Your task to perform on an android device: toggle airplane mode Image 0: 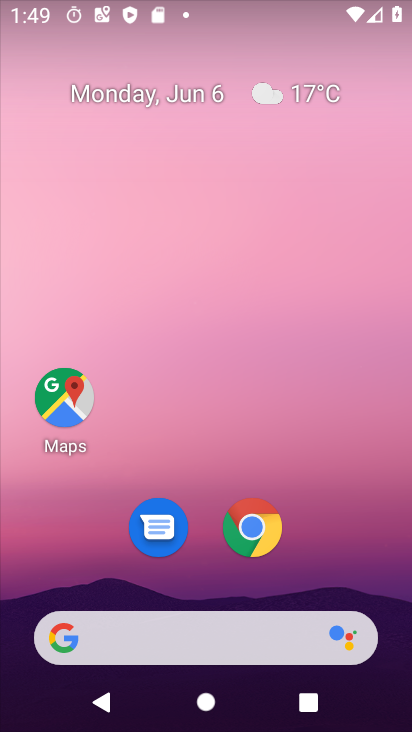
Step 0: drag from (232, 719) to (189, 64)
Your task to perform on an android device: toggle airplane mode Image 1: 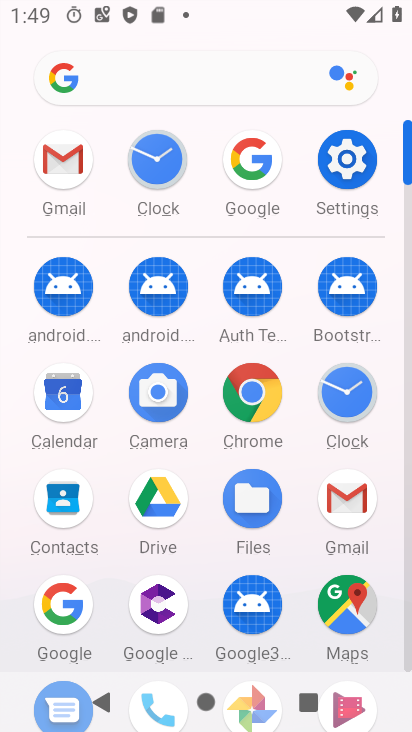
Step 1: click (345, 163)
Your task to perform on an android device: toggle airplane mode Image 2: 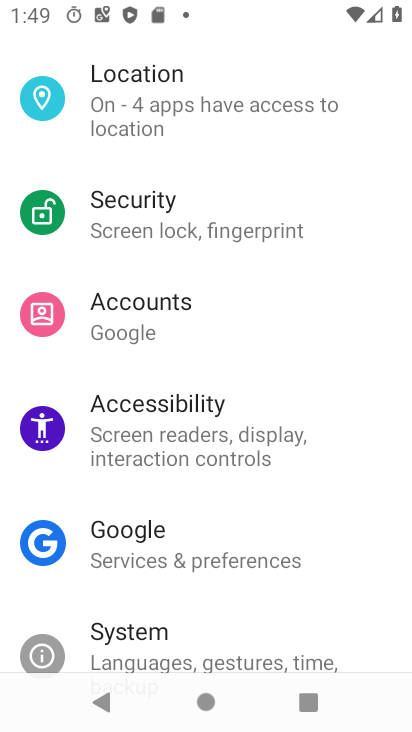
Step 2: drag from (252, 102) to (203, 559)
Your task to perform on an android device: toggle airplane mode Image 3: 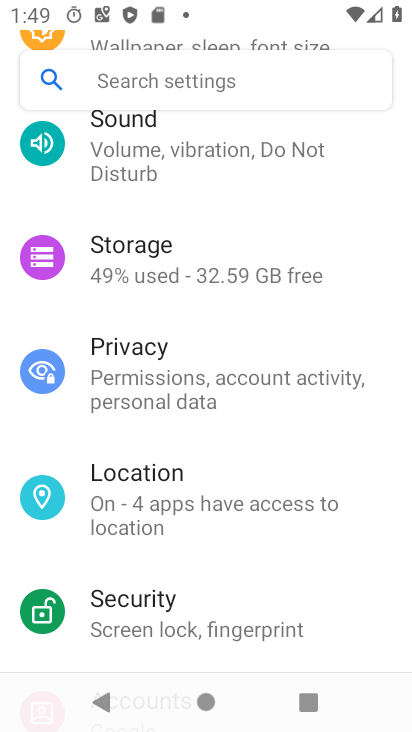
Step 3: drag from (240, 139) to (238, 573)
Your task to perform on an android device: toggle airplane mode Image 4: 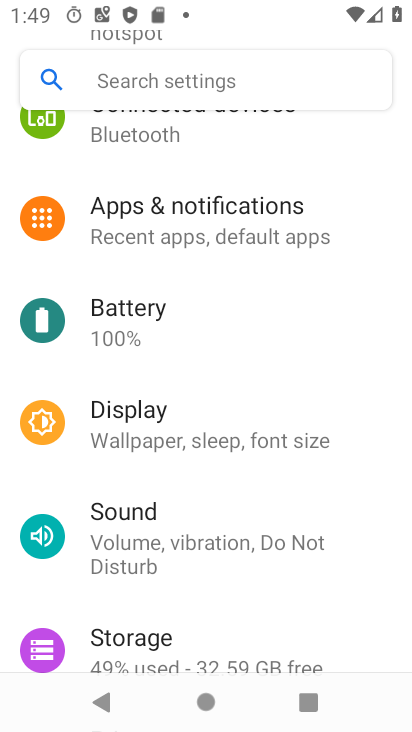
Step 4: drag from (228, 147) to (230, 566)
Your task to perform on an android device: toggle airplane mode Image 5: 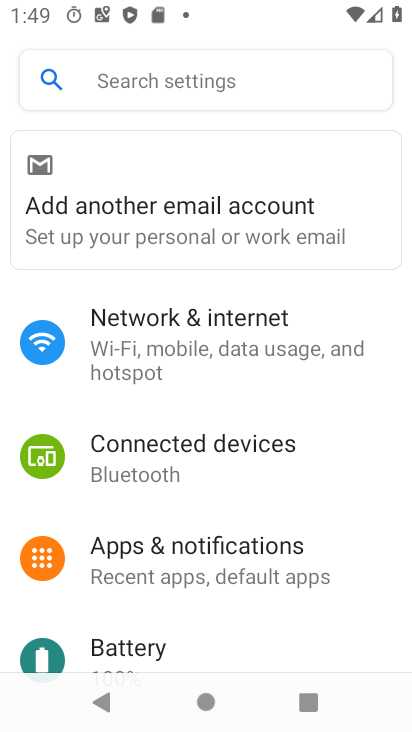
Step 5: click (169, 325)
Your task to perform on an android device: toggle airplane mode Image 6: 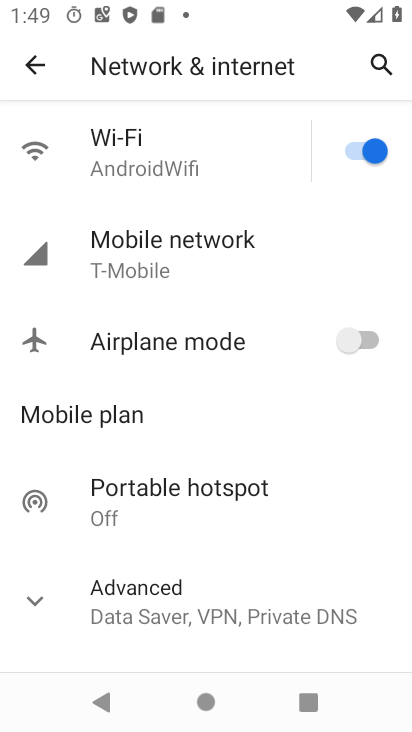
Step 6: click (359, 337)
Your task to perform on an android device: toggle airplane mode Image 7: 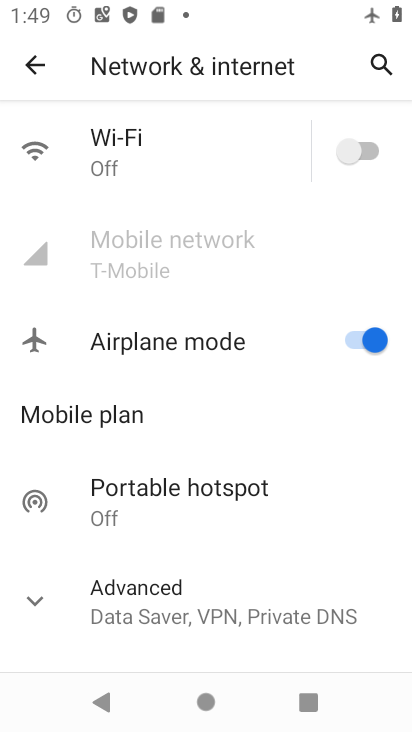
Step 7: task complete